Your task to perform on an android device: create a new album in the google photos Image 0: 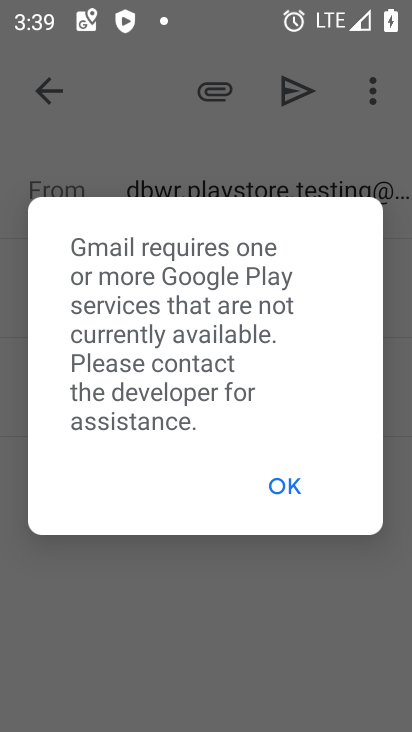
Step 0: click (247, 216)
Your task to perform on an android device: create a new album in the google photos Image 1: 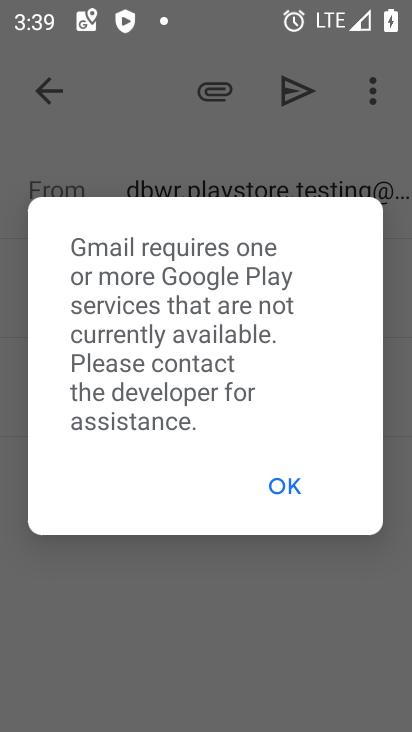
Step 1: click (274, 494)
Your task to perform on an android device: create a new album in the google photos Image 2: 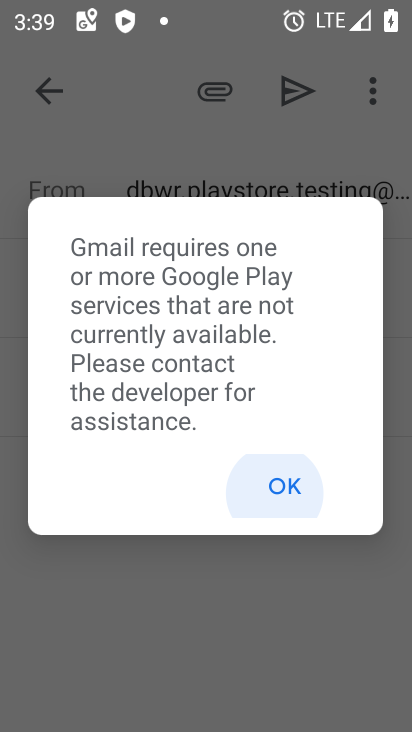
Step 2: click (275, 492)
Your task to perform on an android device: create a new album in the google photos Image 3: 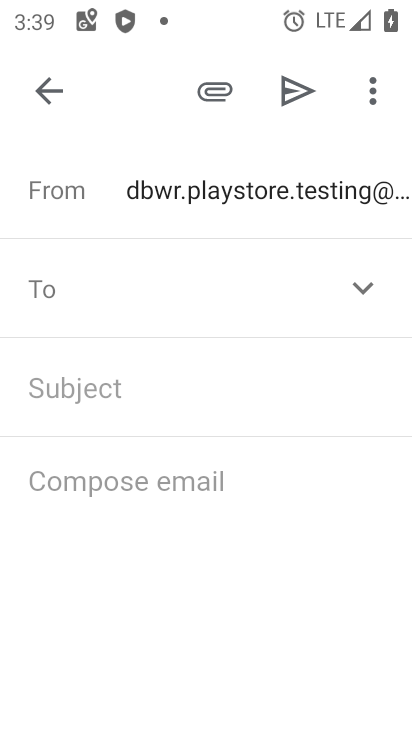
Step 3: click (275, 492)
Your task to perform on an android device: create a new album in the google photos Image 4: 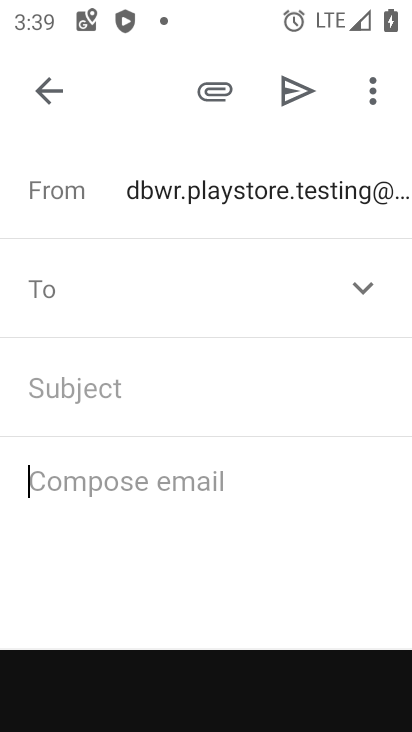
Step 4: click (274, 492)
Your task to perform on an android device: create a new album in the google photos Image 5: 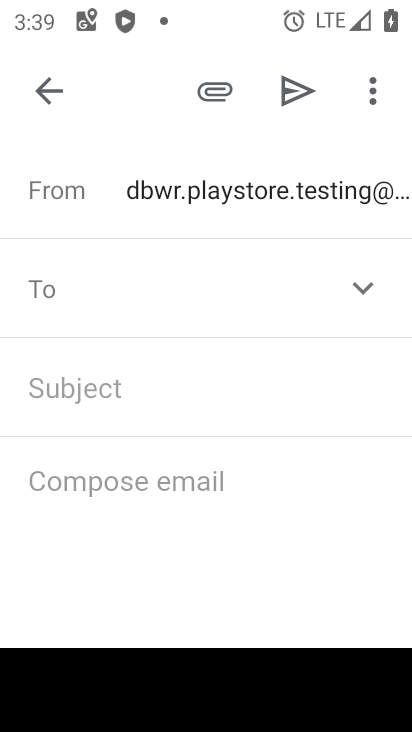
Step 5: click (43, 105)
Your task to perform on an android device: create a new album in the google photos Image 6: 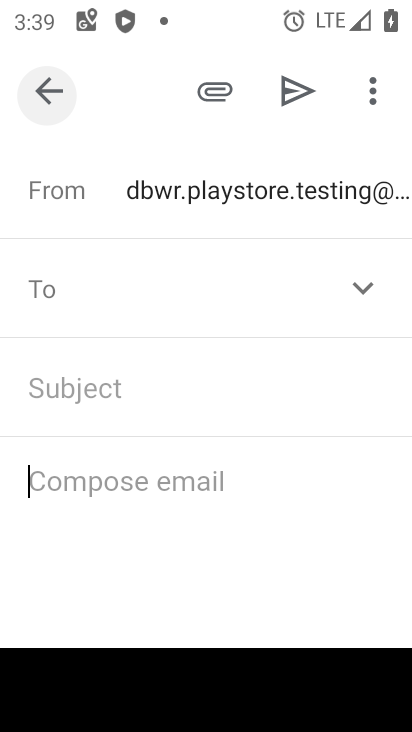
Step 6: click (35, 104)
Your task to perform on an android device: create a new album in the google photos Image 7: 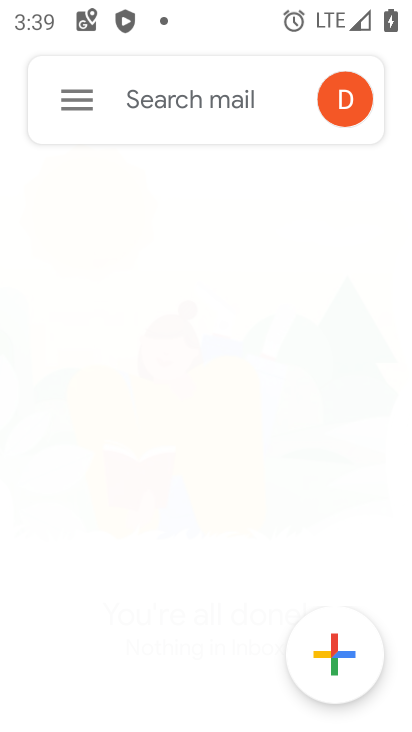
Step 7: click (33, 85)
Your task to perform on an android device: create a new album in the google photos Image 8: 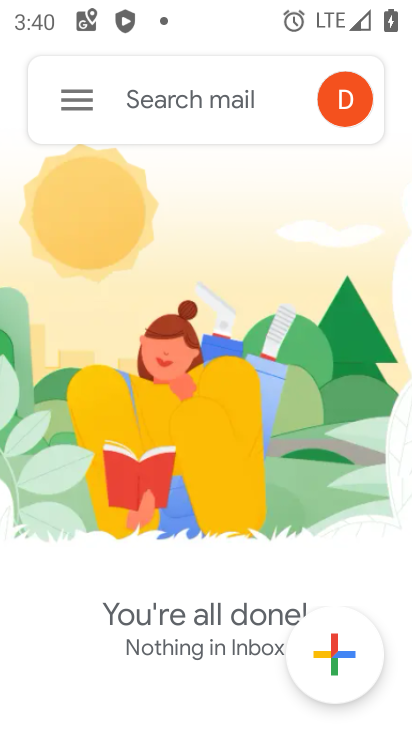
Step 8: click (64, 108)
Your task to perform on an android device: create a new album in the google photos Image 9: 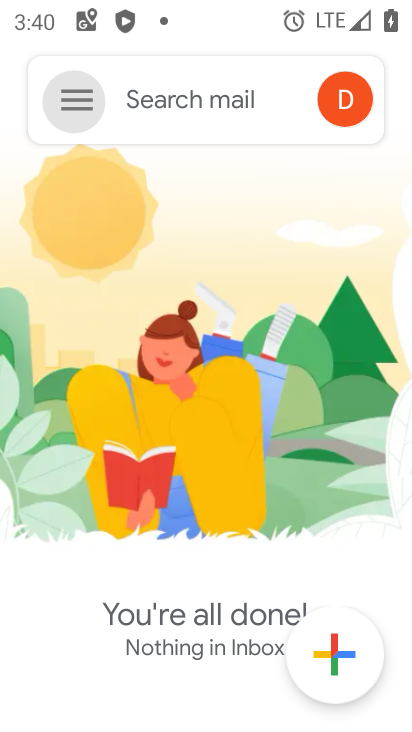
Step 9: click (64, 108)
Your task to perform on an android device: create a new album in the google photos Image 10: 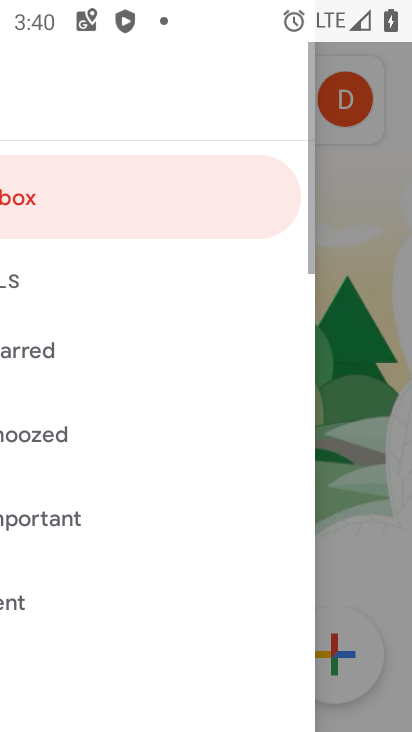
Step 10: click (72, 98)
Your task to perform on an android device: create a new album in the google photos Image 11: 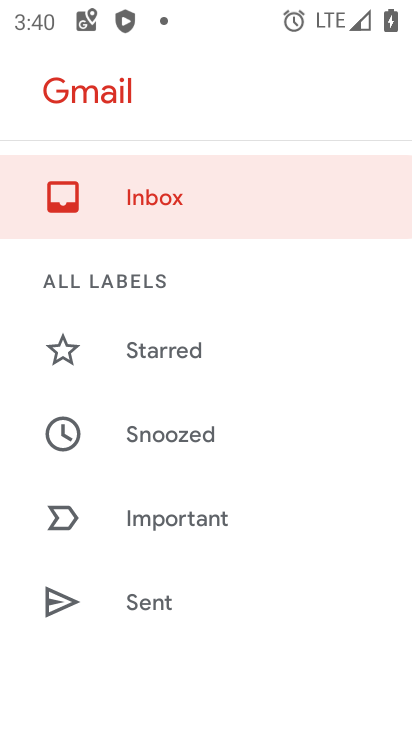
Step 11: drag from (172, 497) to (84, 80)
Your task to perform on an android device: create a new album in the google photos Image 12: 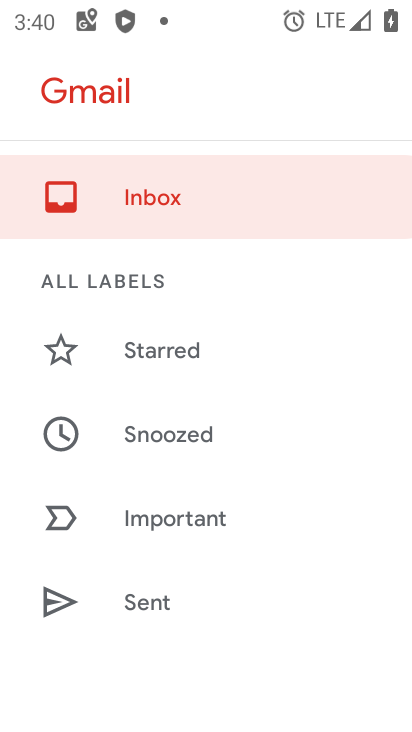
Step 12: drag from (228, 397) to (237, 63)
Your task to perform on an android device: create a new album in the google photos Image 13: 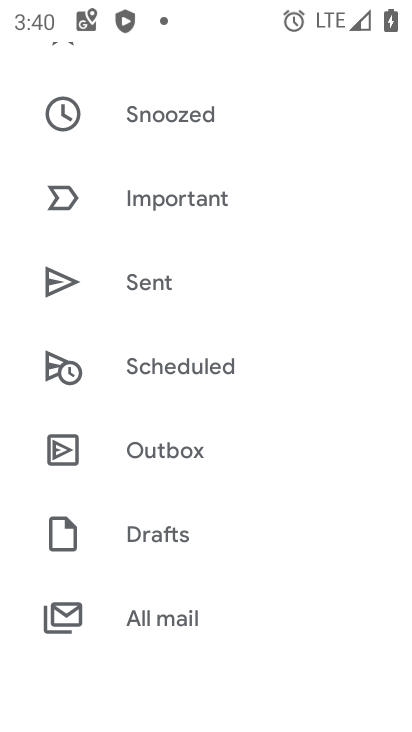
Step 13: drag from (203, 537) to (212, 235)
Your task to perform on an android device: create a new album in the google photos Image 14: 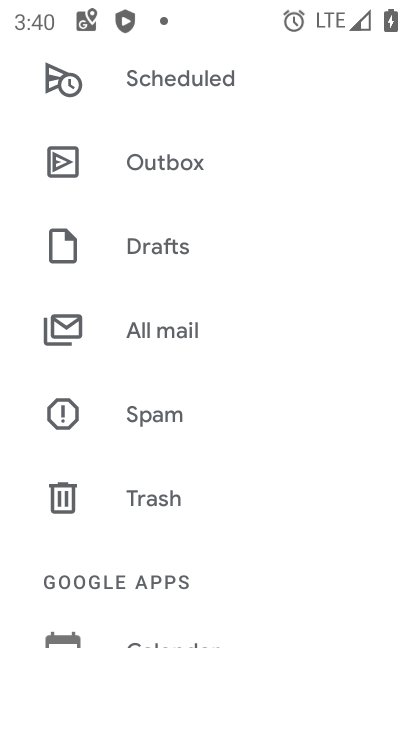
Step 14: drag from (229, 502) to (202, 255)
Your task to perform on an android device: create a new album in the google photos Image 15: 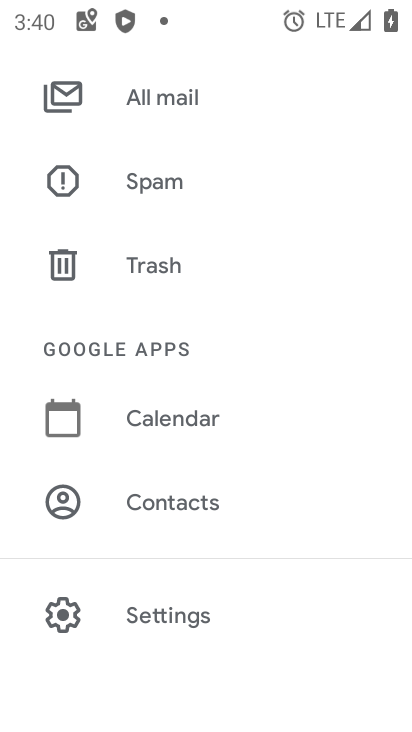
Step 15: press back button
Your task to perform on an android device: create a new album in the google photos Image 16: 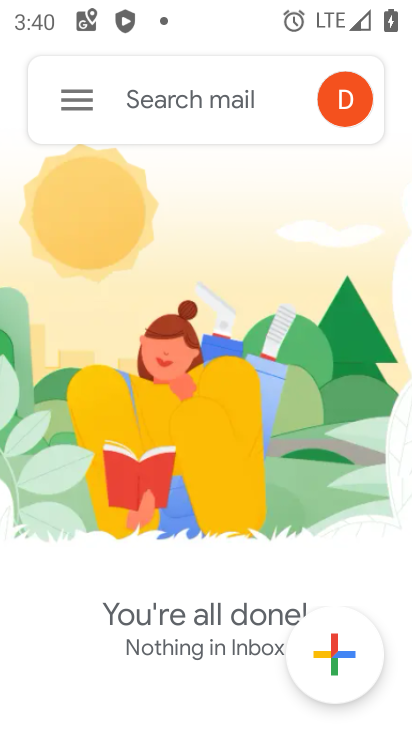
Step 16: press home button
Your task to perform on an android device: create a new album in the google photos Image 17: 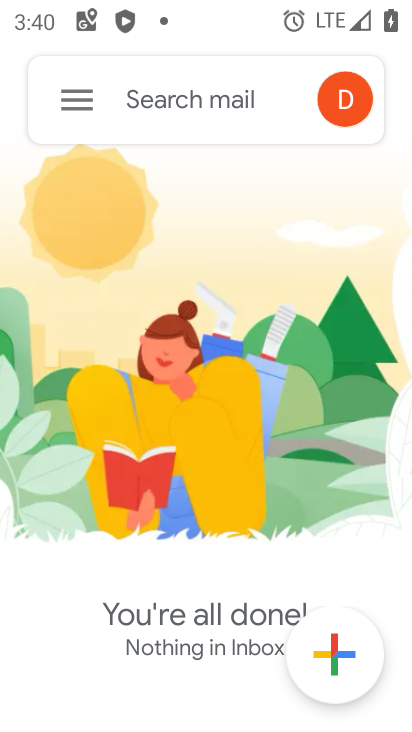
Step 17: press home button
Your task to perform on an android device: create a new album in the google photos Image 18: 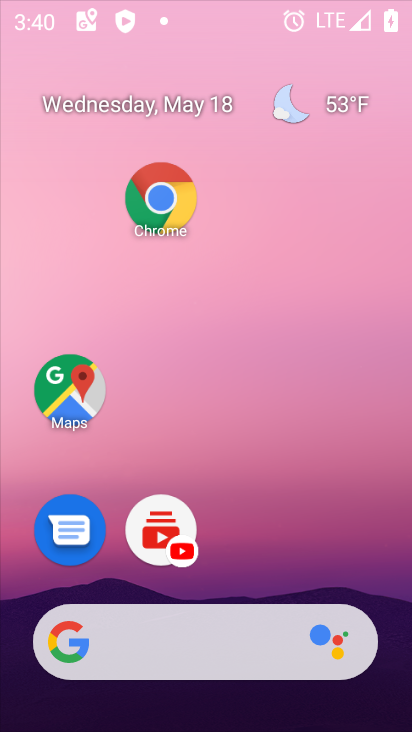
Step 18: press home button
Your task to perform on an android device: create a new album in the google photos Image 19: 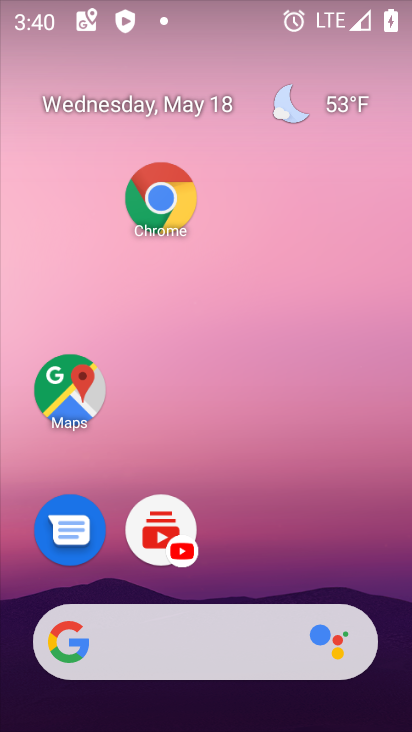
Step 19: drag from (289, 597) to (217, 17)
Your task to perform on an android device: create a new album in the google photos Image 20: 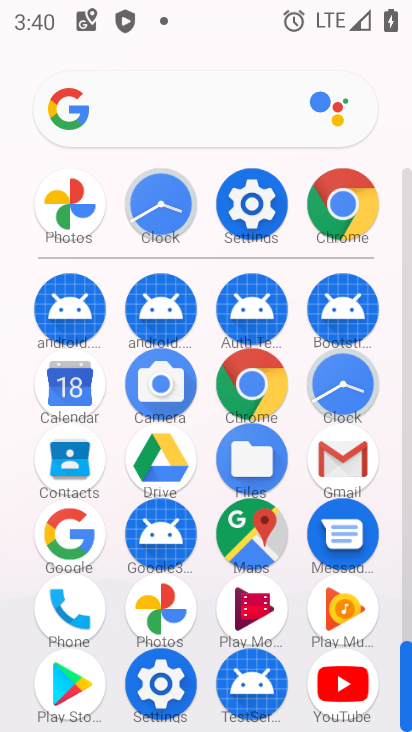
Step 20: click (74, 210)
Your task to perform on an android device: create a new album in the google photos Image 21: 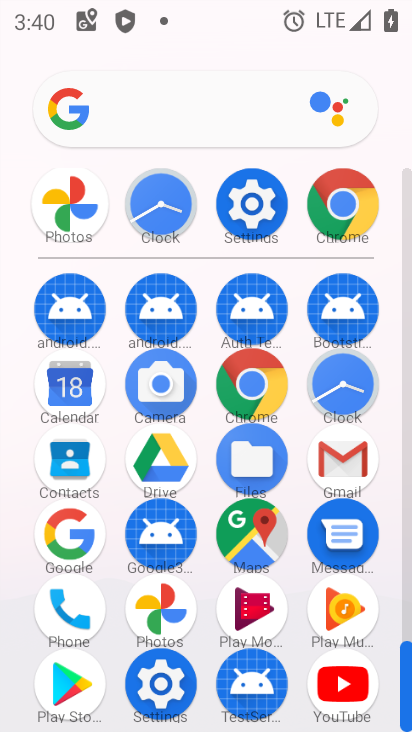
Step 21: click (72, 203)
Your task to perform on an android device: create a new album in the google photos Image 22: 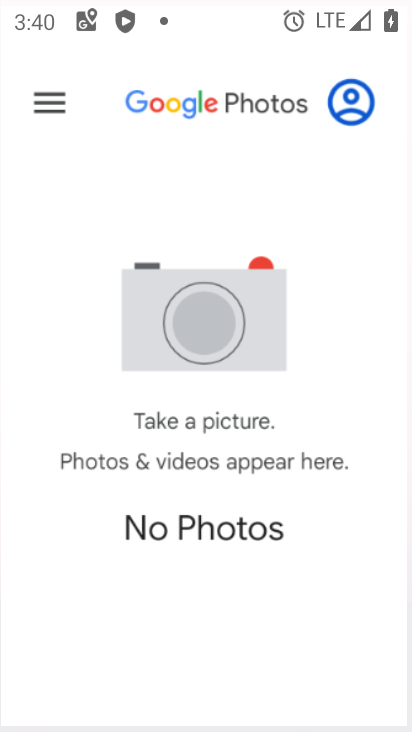
Step 22: click (62, 206)
Your task to perform on an android device: create a new album in the google photos Image 23: 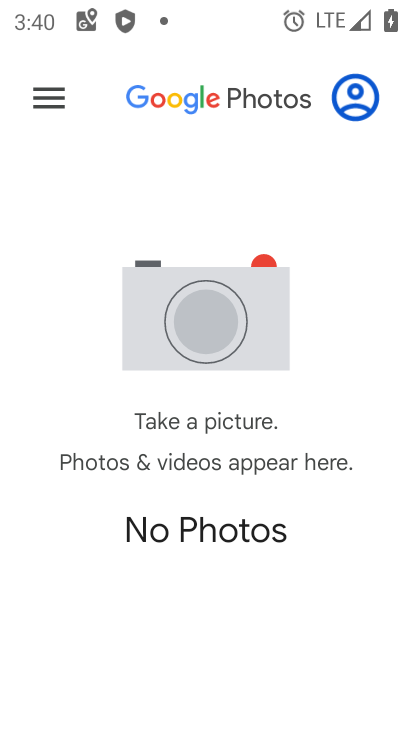
Step 23: task complete